Your task to perform on an android device: turn on sleep mode Image 0: 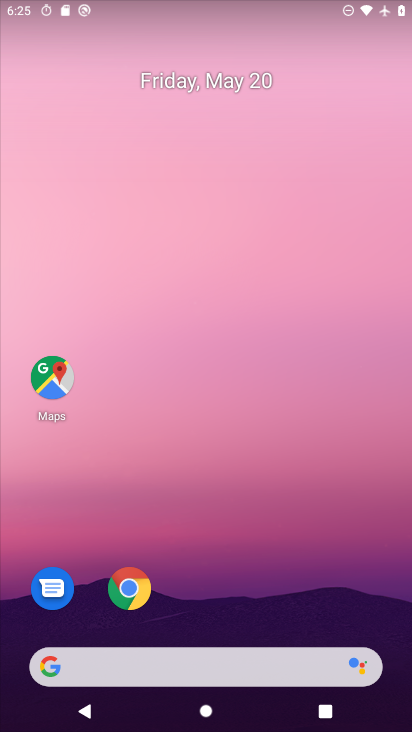
Step 0: drag from (213, 593) to (213, 233)
Your task to perform on an android device: turn on sleep mode Image 1: 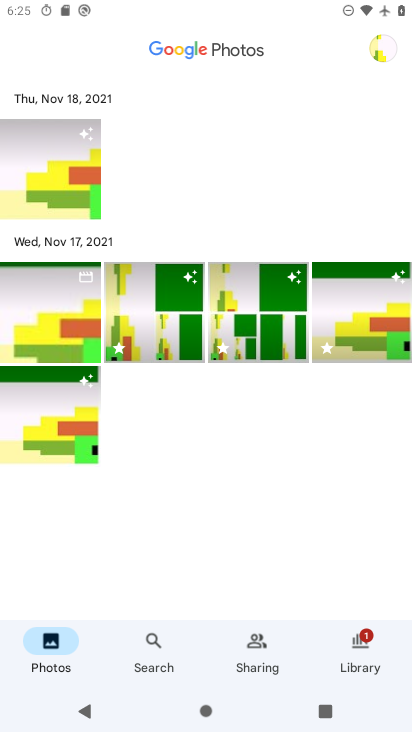
Step 1: task complete